Your task to perform on an android device: turn off wifi Image 0: 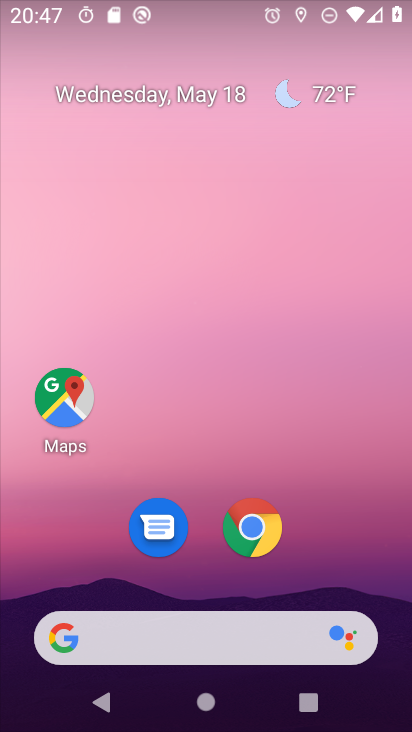
Step 0: drag from (376, 383) to (351, 127)
Your task to perform on an android device: turn off wifi Image 1: 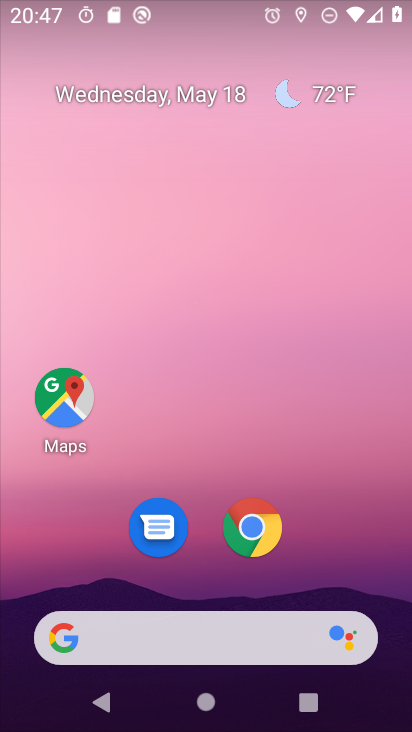
Step 1: drag from (379, 686) to (375, 160)
Your task to perform on an android device: turn off wifi Image 2: 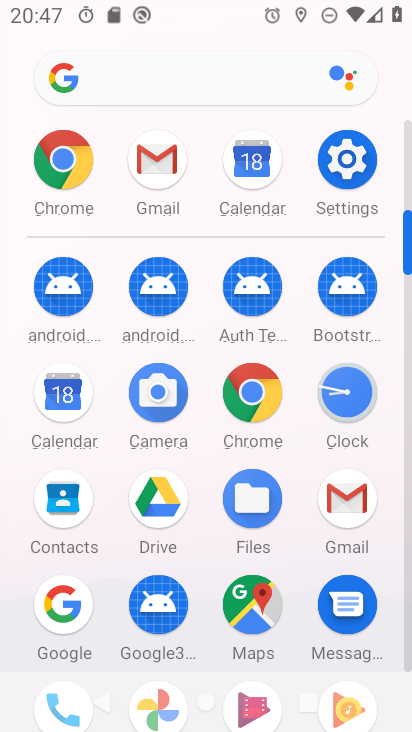
Step 2: click (340, 153)
Your task to perform on an android device: turn off wifi Image 3: 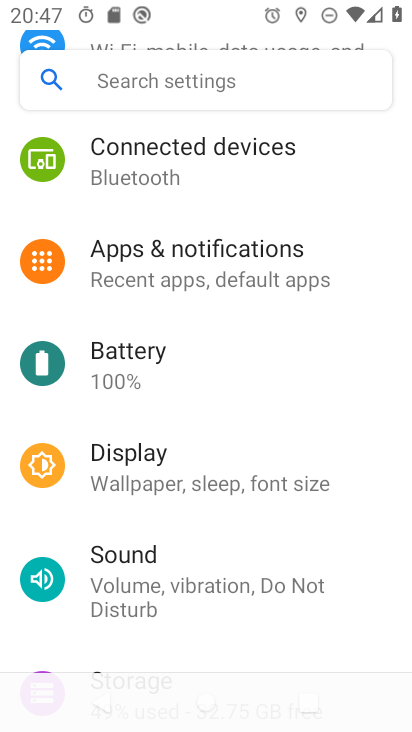
Step 3: drag from (383, 370) to (398, 502)
Your task to perform on an android device: turn off wifi Image 4: 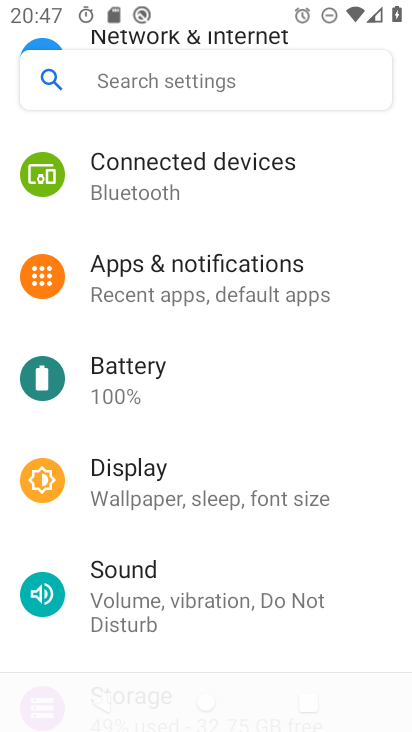
Step 4: click (210, 36)
Your task to perform on an android device: turn off wifi Image 5: 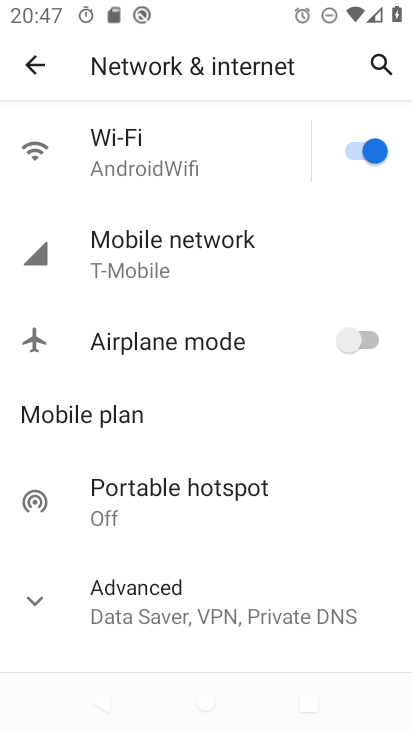
Step 5: click (355, 151)
Your task to perform on an android device: turn off wifi Image 6: 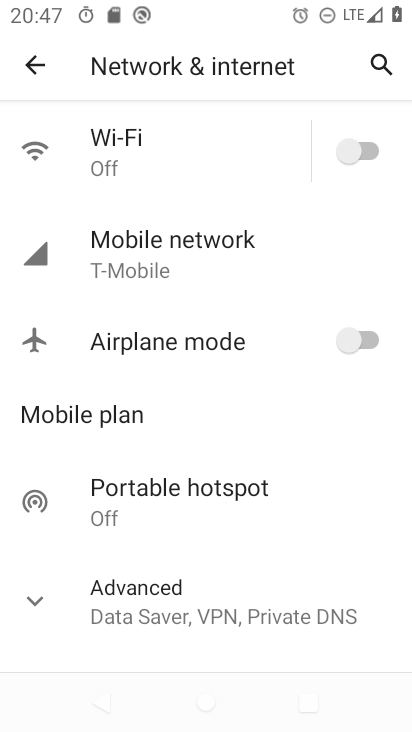
Step 6: task complete